Your task to perform on an android device: Open notification settings Image 0: 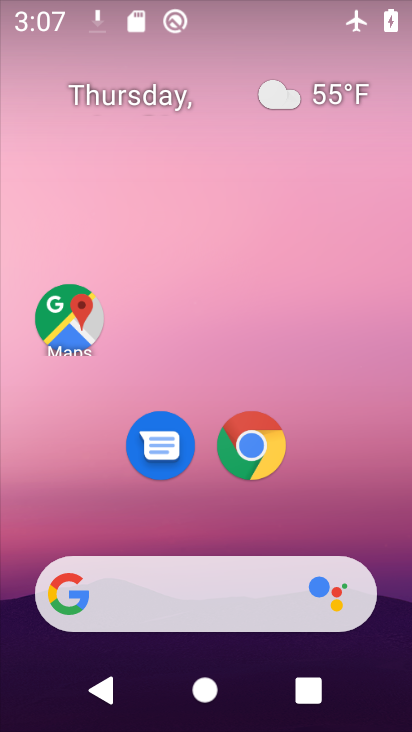
Step 0: drag from (340, 505) to (241, 128)
Your task to perform on an android device: Open notification settings Image 1: 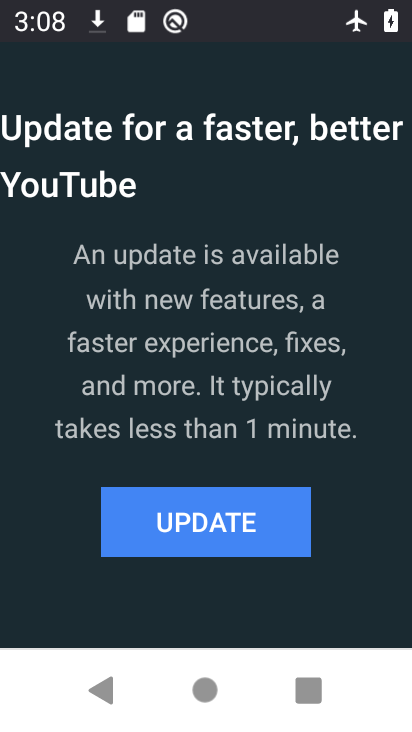
Step 1: press home button
Your task to perform on an android device: Open notification settings Image 2: 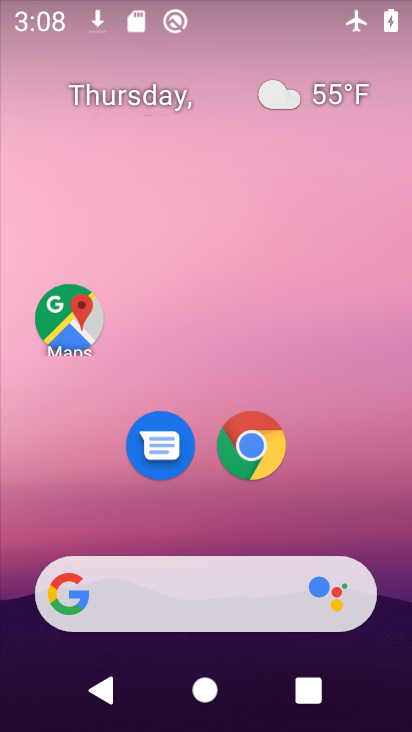
Step 2: drag from (315, 470) to (317, 181)
Your task to perform on an android device: Open notification settings Image 3: 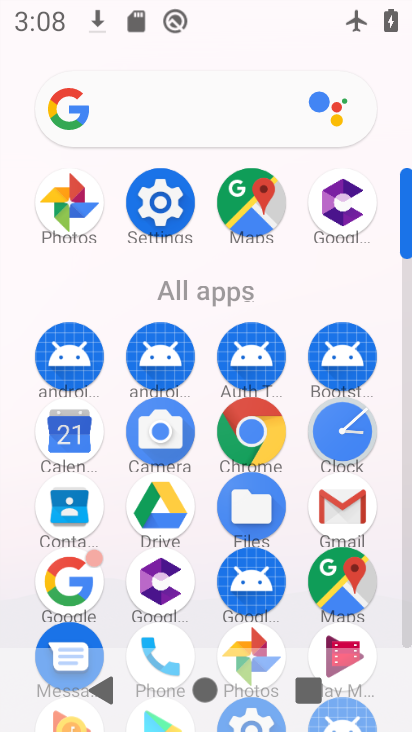
Step 3: drag from (296, 583) to (294, 252)
Your task to perform on an android device: Open notification settings Image 4: 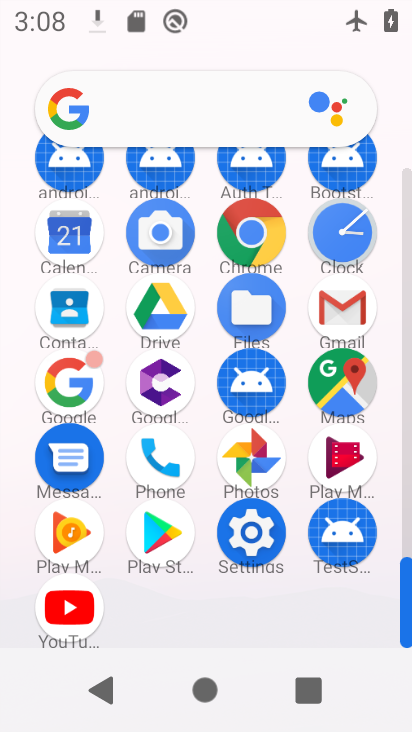
Step 4: click (252, 512)
Your task to perform on an android device: Open notification settings Image 5: 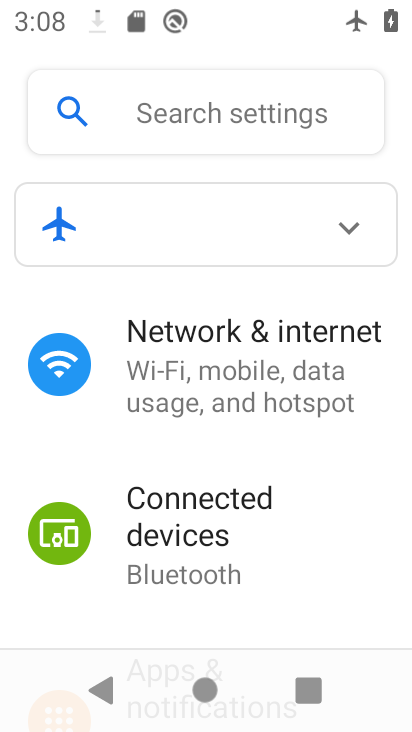
Step 5: drag from (297, 538) to (300, 283)
Your task to perform on an android device: Open notification settings Image 6: 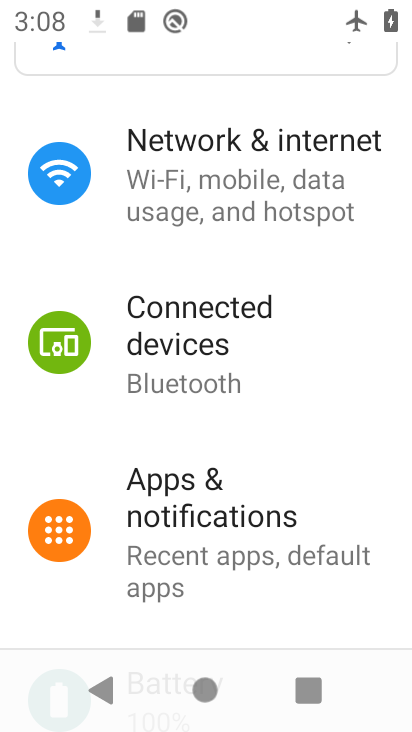
Step 6: click (287, 527)
Your task to perform on an android device: Open notification settings Image 7: 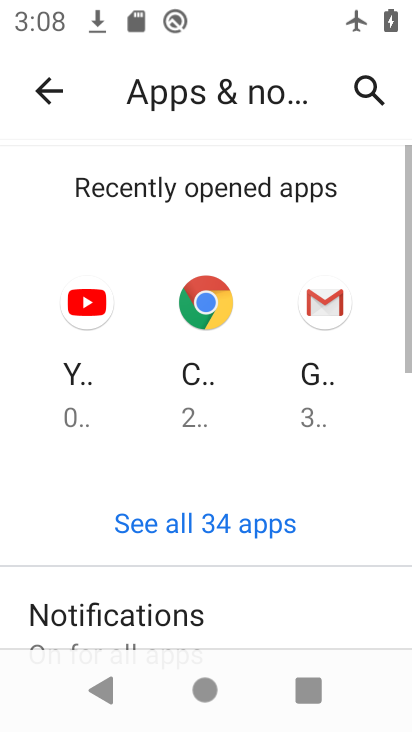
Step 7: click (189, 636)
Your task to perform on an android device: Open notification settings Image 8: 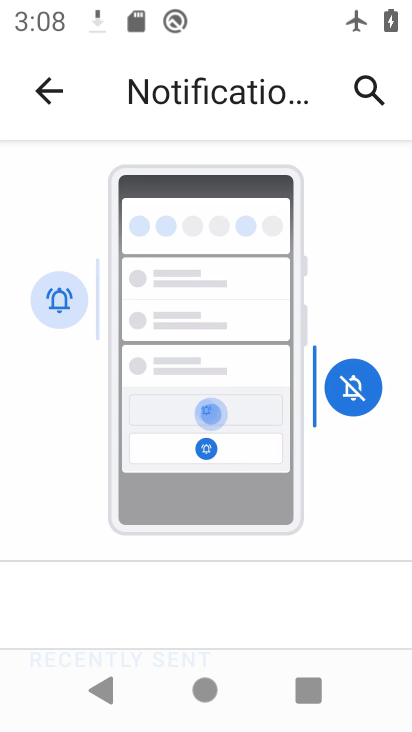
Step 8: task complete